Your task to perform on an android device: Search for Mexican restaurants on Maps Image 0: 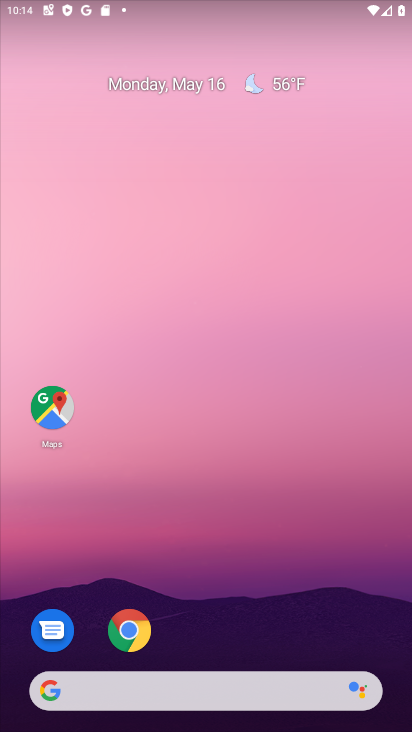
Step 0: click (55, 390)
Your task to perform on an android device: Search for Mexican restaurants on Maps Image 1: 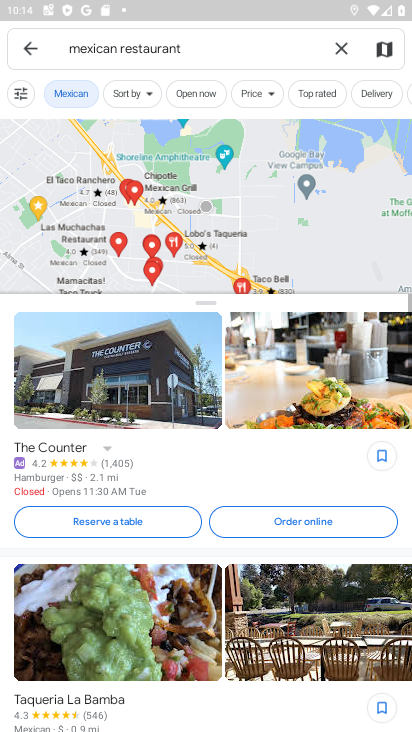
Step 1: task complete